Your task to perform on an android device: Set the phone to "Do not disturb". Image 0: 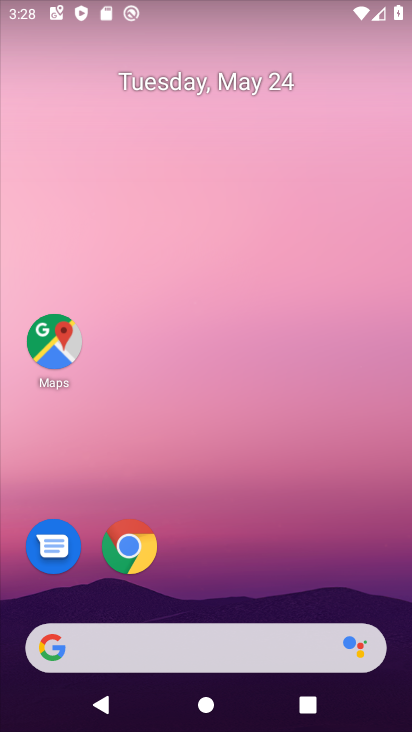
Step 0: drag from (284, 470) to (230, 58)
Your task to perform on an android device: Set the phone to "Do not disturb". Image 1: 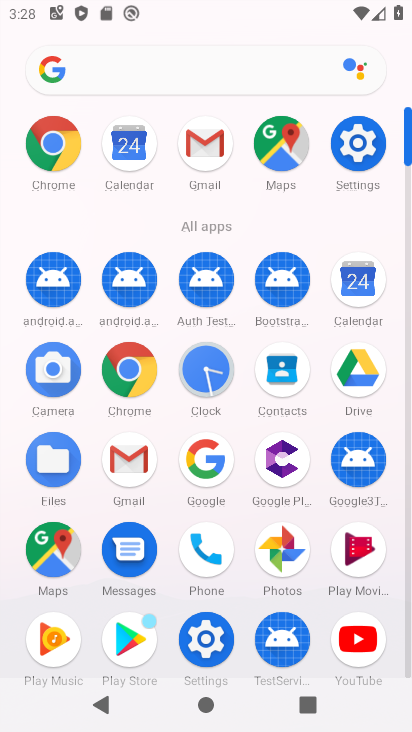
Step 1: click (217, 560)
Your task to perform on an android device: Set the phone to "Do not disturb". Image 2: 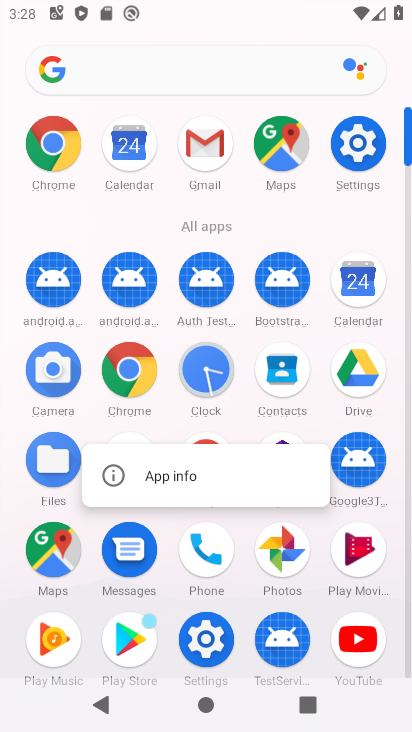
Step 2: click (205, 552)
Your task to perform on an android device: Set the phone to "Do not disturb". Image 3: 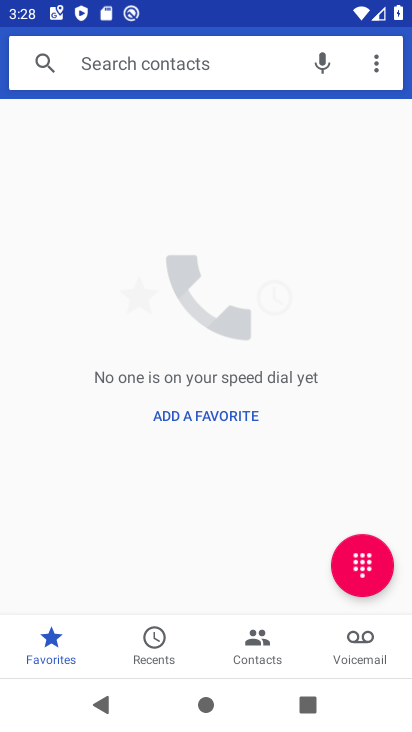
Step 3: press home button
Your task to perform on an android device: Set the phone to "Do not disturb". Image 4: 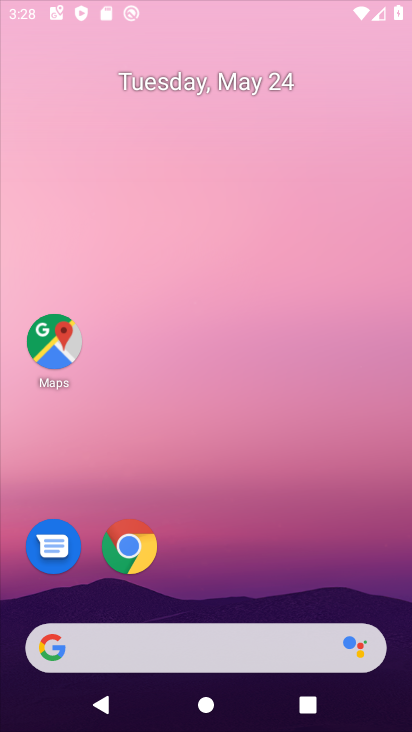
Step 4: drag from (304, 505) to (195, 27)
Your task to perform on an android device: Set the phone to "Do not disturb". Image 5: 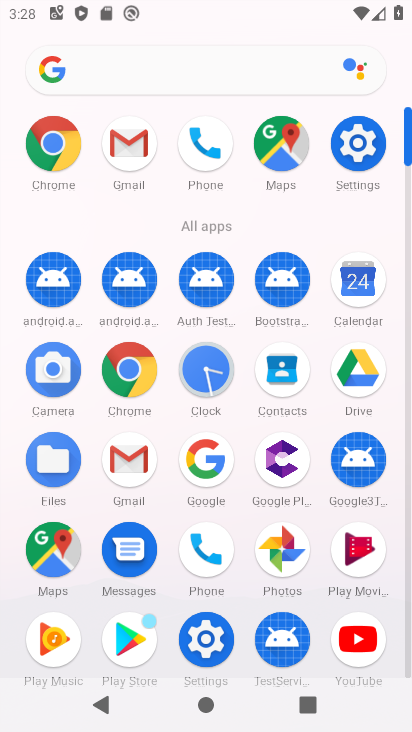
Step 5: click (366, 143)
Your task to perform on an android device: Set the phone to "Do not disturb". Image 6: 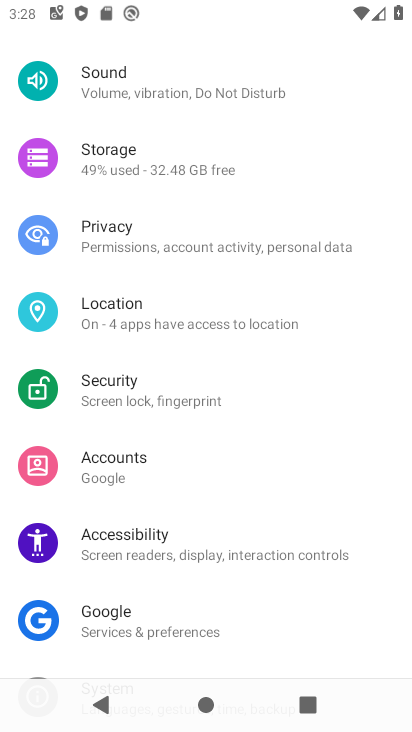
Step 6: drag from (244, 568) to (240, 132)
Your task to perform on an android device: Set the phone to "Do not disturb". Image 7: 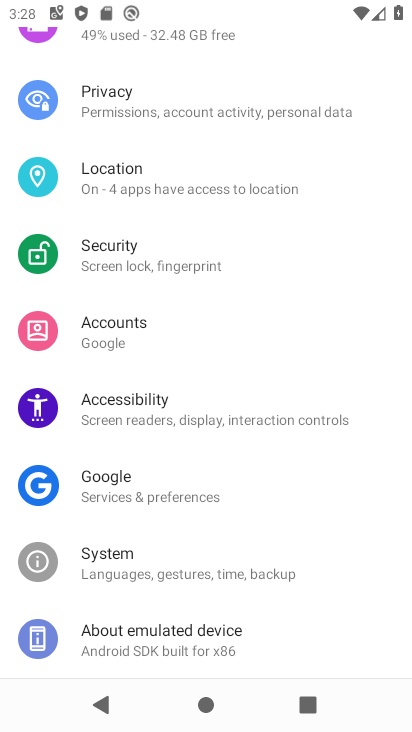
Step 7: drag from (224, 565) to (210, 135)
Your task to perform on an android device: Set the phone to "Do not disturb". Image 8: 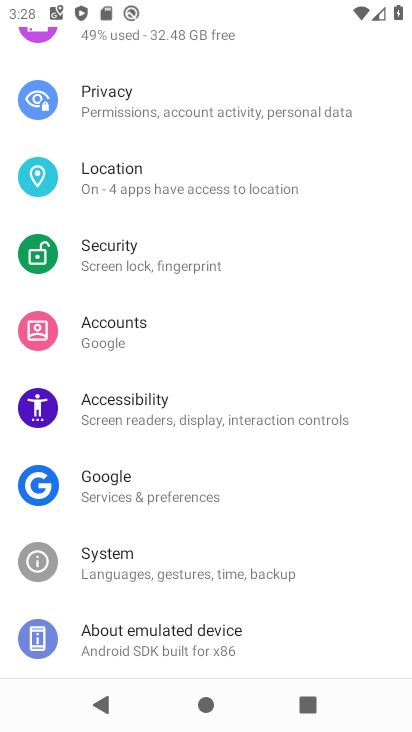
Step 8: drag from (226, 133) to (191, 611)
Your task to perform on an android device: Set the phone to "Do not disturb". Image 9: 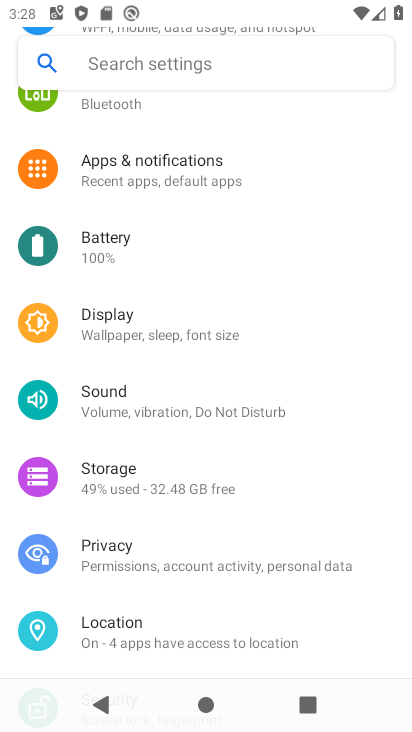
Step 9: drag from (233, 192) to (202, 579)
Your task to perform on an android device: Set the phone to "Do not disturb". Image 10: 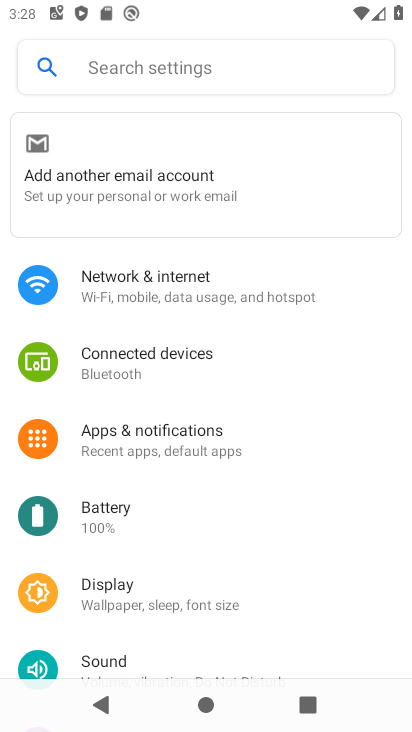
Step 10: drag from (194, 562) to (225, 96)
Your task to perform on an android device: Set the phone to "Do not disturb". Image 11: 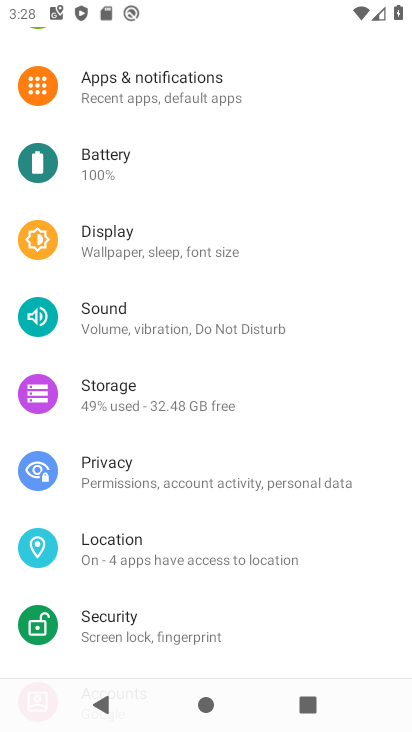
Step 11: click (178, 313)
Your task to perform on an android device: Set the phone to "Do not disturb". Image 12: 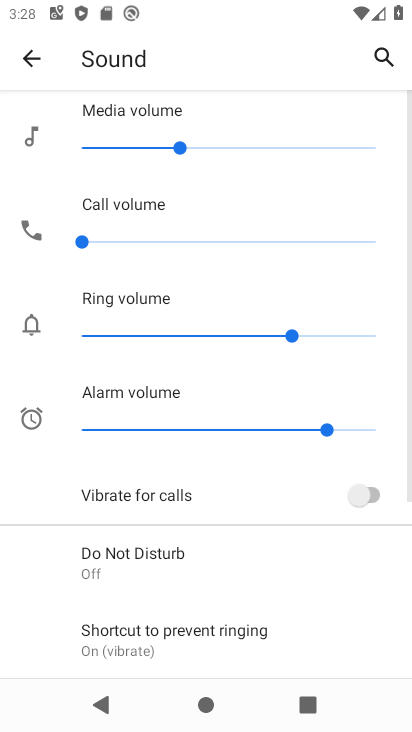
Step 12: drag from (208, 409) to (191, 132)
Your task to perform on an android device: Set the phone to "Do not disturb". Image 13: 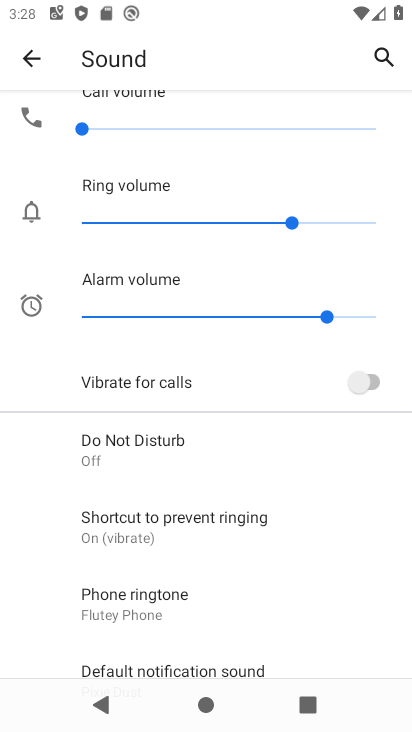
Step 13: click (157, 439)
Your task to perform on an android device: Set the phone to "Do not disturb". Image 14: 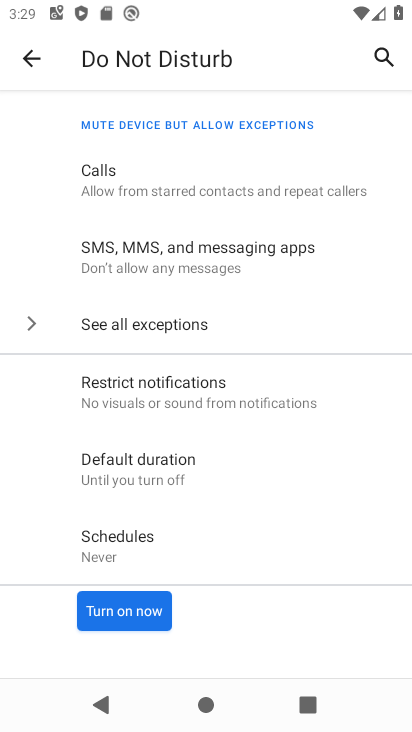
Step 14: click (146, 604)
Your task to perform on an android device: Set the phone to "Do not disturb". Image 15: 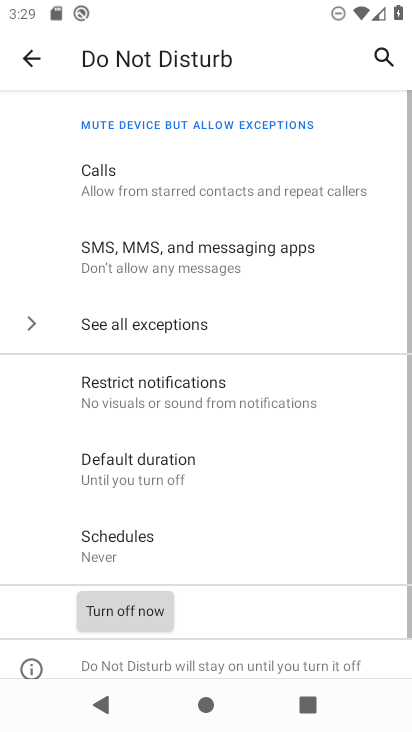
Step 15: task complete